Your task to perform on an android device: turn on airplane mode Image 0: 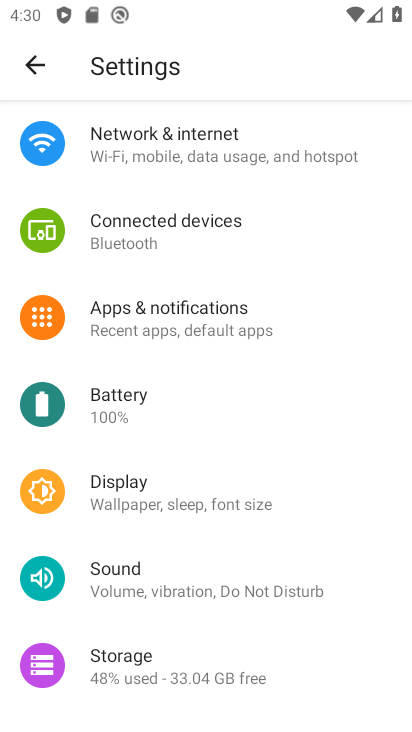
Step 0: press home button
Your task to perform on an android device: turn on airplane mode Image 1: 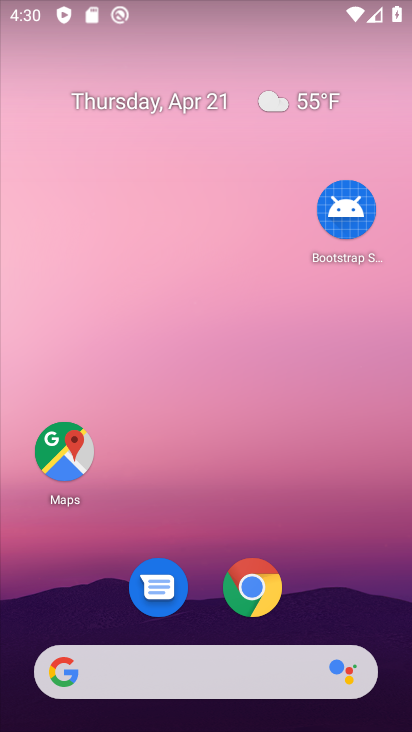
Step 1: drag from (186, 0) to (157, 256)
Your task to perform on an android device: turn on airplane mode Image 2: 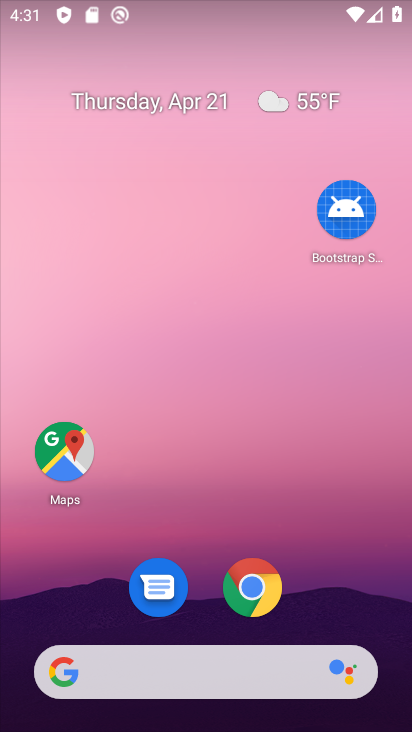
Step 2: drag from (255, 14) to (226, 143)
Your task to perform on an android device: turn on airplane mode Image 3: 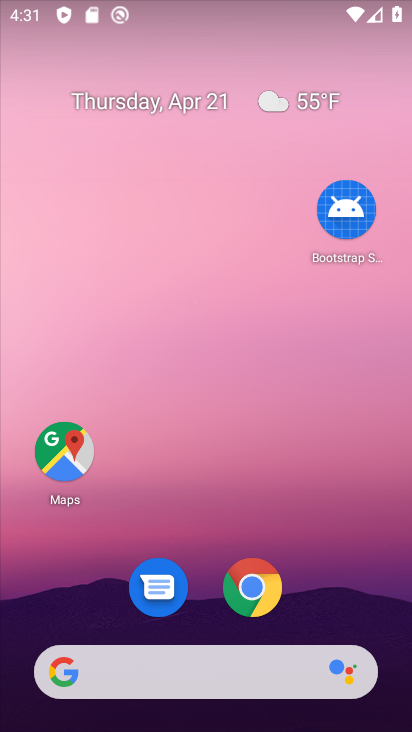
Step 3: drag from (213, 25) to (212, 424)
Your task to perform on an android device: turn on airplane mode Image 4: 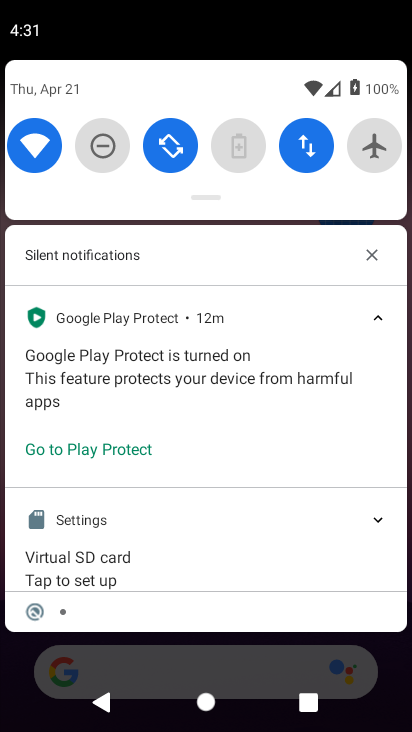
Step 4: drag from (281, 197) to (237, 460)
Your task to perform on an android device: turn on airplane mode Image 5: 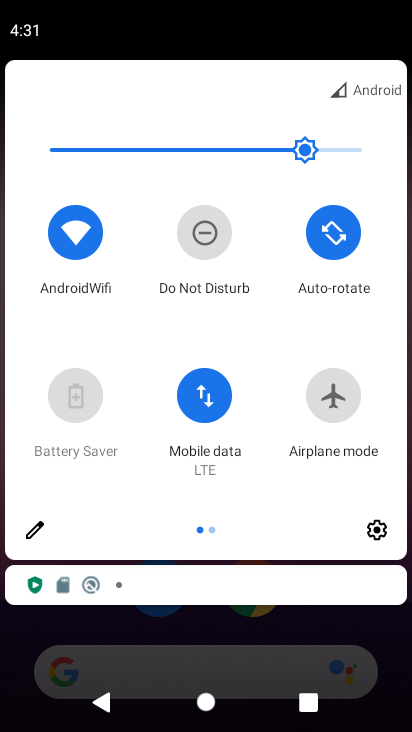
Step 5: click (329, 400)
Your task to perform on an android device: turn on airplane mode Image 6: 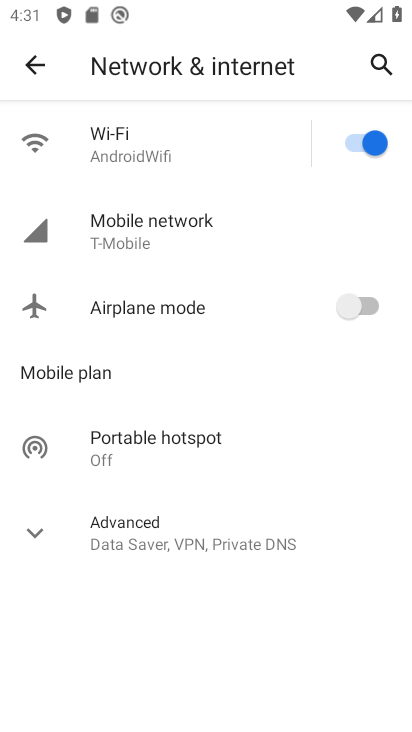
Step 6: click (365, 308)
Your task to perform on an android device: turn on airplane mode Image 7: 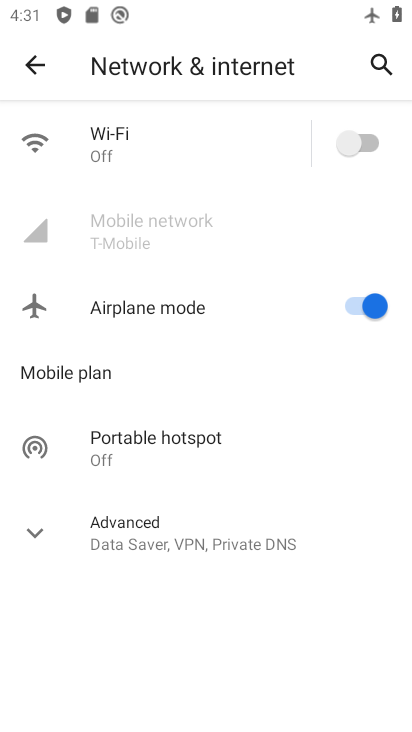
Step 7: click (46, 53)
Your task to perform on an android device: turn on airplane mode Image 8: 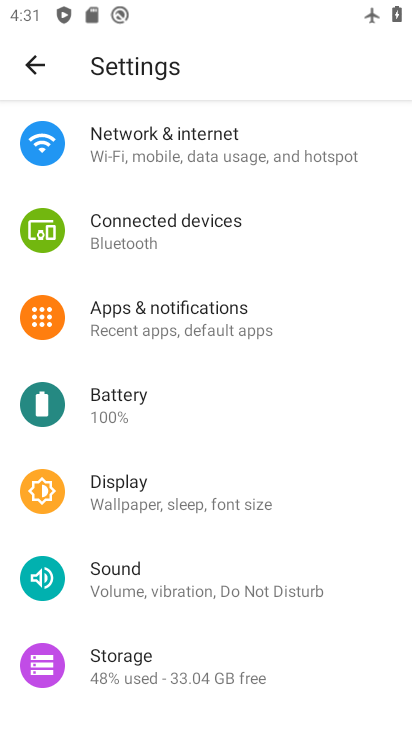
Step 8: task complete